Your task to perform on an android device: turn on notifications settings in the gmail app Image 0: 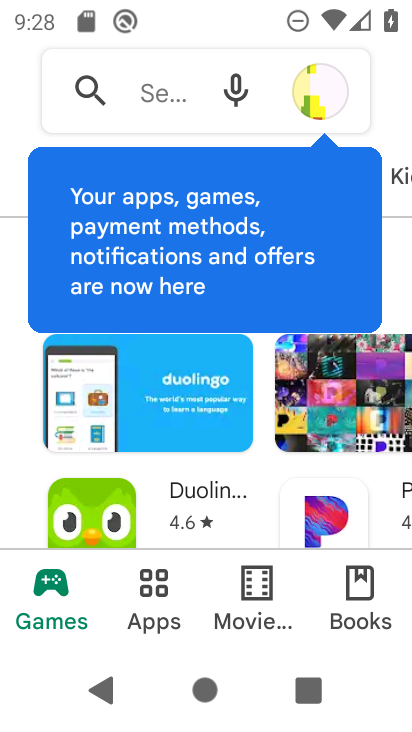
Step 0: press home button
Your task to perform on an android device: turn on notifications settings in the gmail app Image 1: 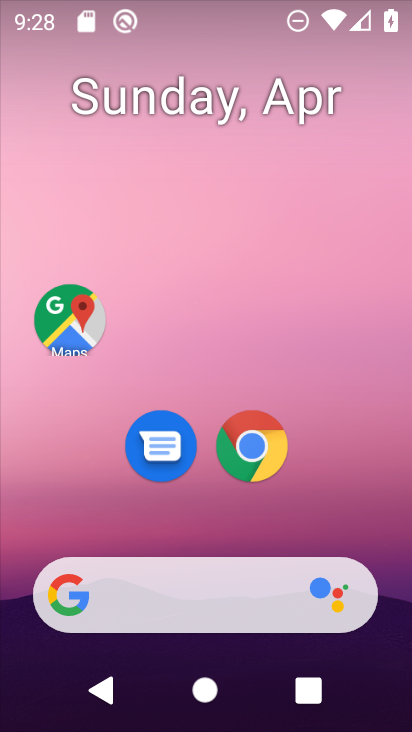
Step 1: drag from (194, 526) to (244, 223)
Your task to perform on an android device: turn on notifications settings in the gmail app Image 2: 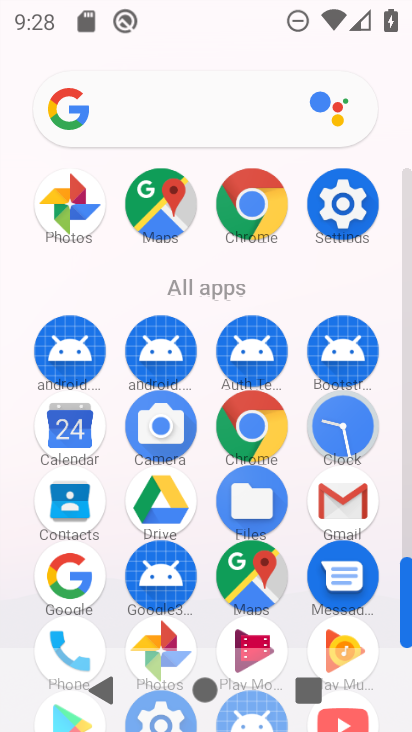
Step 2: click (342, 499)
Your task to perform on an android device: turn on notifications settings in the gmail app Image 3: 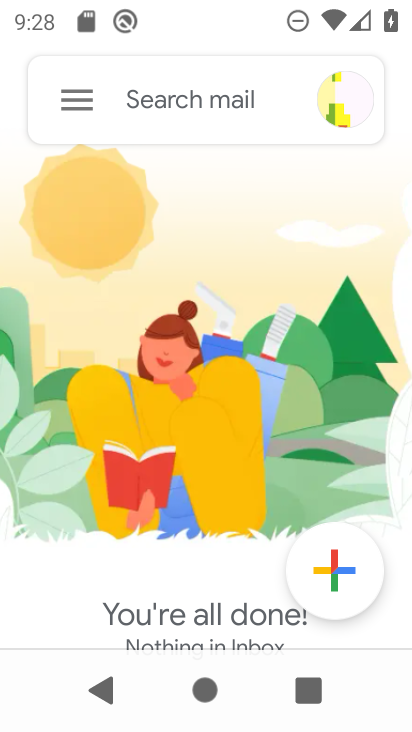
Step 3: click (77, 96)
Your task to perform on an android device: turn on notifications settings in the gmail app Image 4: 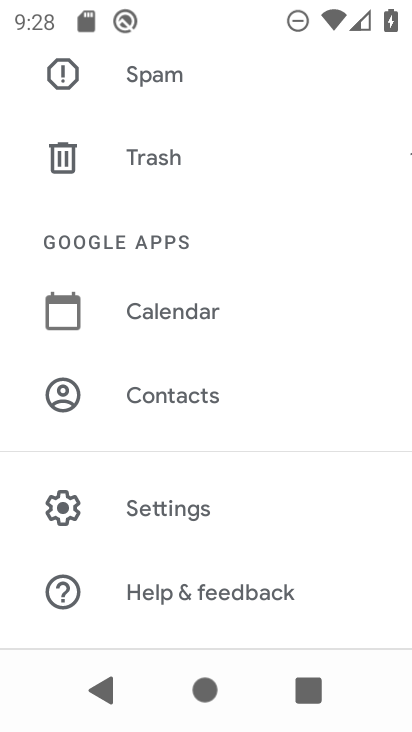
Step 4: click (180, 510)
Your task to perform on an android device: turn on notifications settings in the gmail app Image 5: 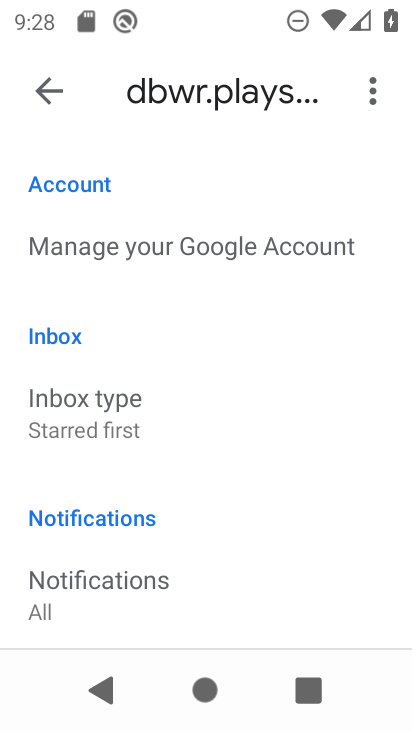
Step 5: drag from (161, 406) to (164, 188)
Your task to perform on an android device: turn on notifications settings in the gmail app Image 6: 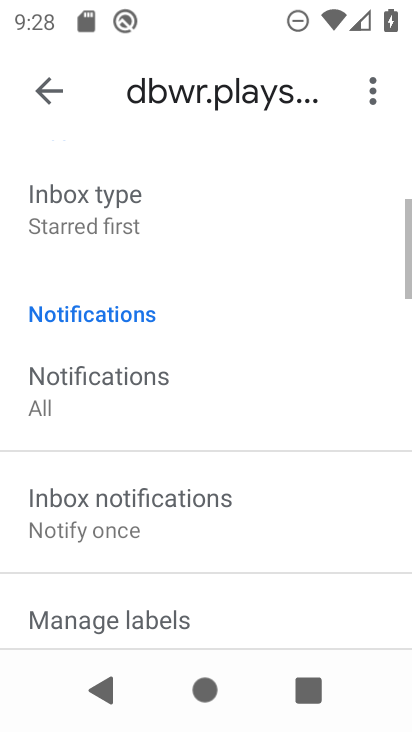
Step 6: drag from (187, 504) to (190, 192)
Your task to perform on an android device: turn on notifications settings in the gmail app Image 7: 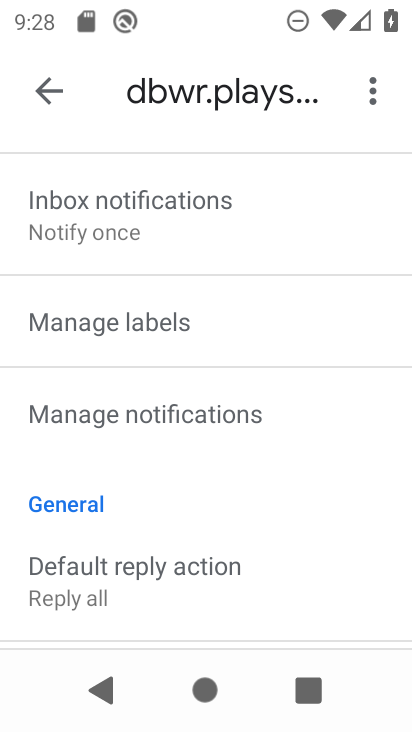
Step 7: click (172, 409)
Your task to perform on an android device: turn on notifications settings in the gmail app Image 8: 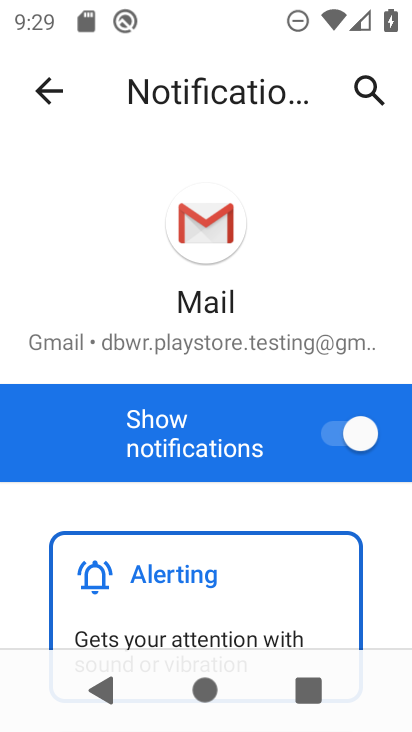
Step 8: task complete